Your task to perform on an android device: turn off data saver in the chrome app Image 0: 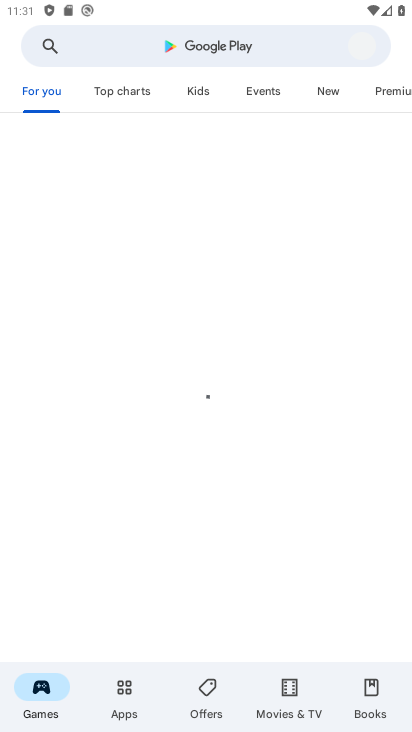
Step 0: click (401, 419)
Your task to perform on an android device: turn off data saver in the chrome app Image 1: 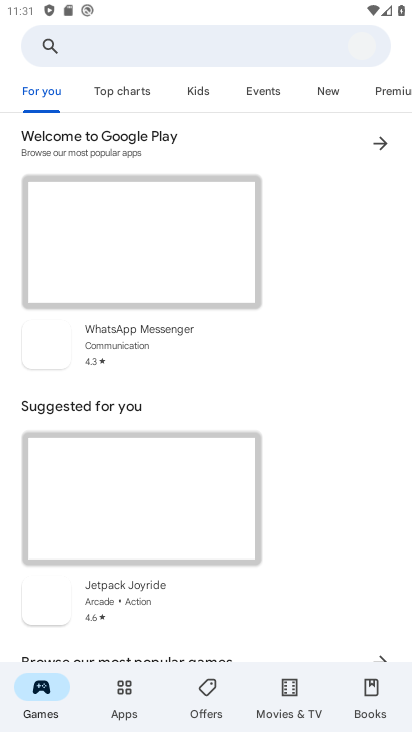
Step 1: press home button
Your task to perform on an android device: turn off data saver in the chrome app Image 2: 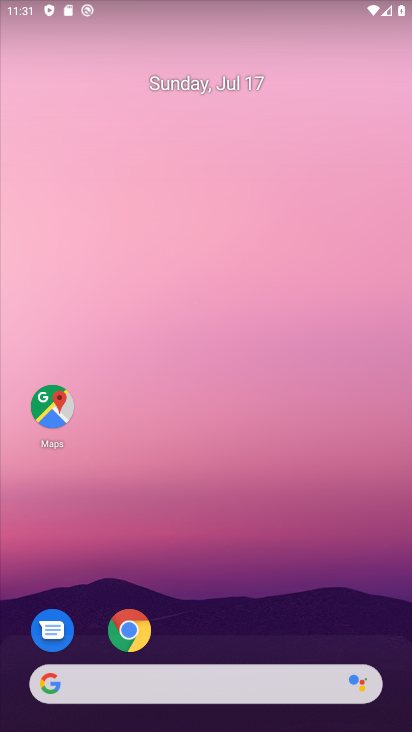
Step 2: click (125, 627)
Your task to perform on an android device: turn off data saver in the chrome app Image 3: 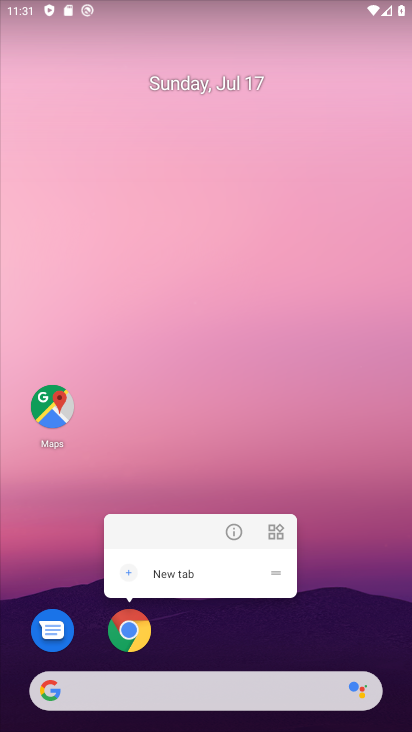
Step 3: click (115, 642)
Your task to perform on an android device: turn off data saver in the chrome app Image 4: 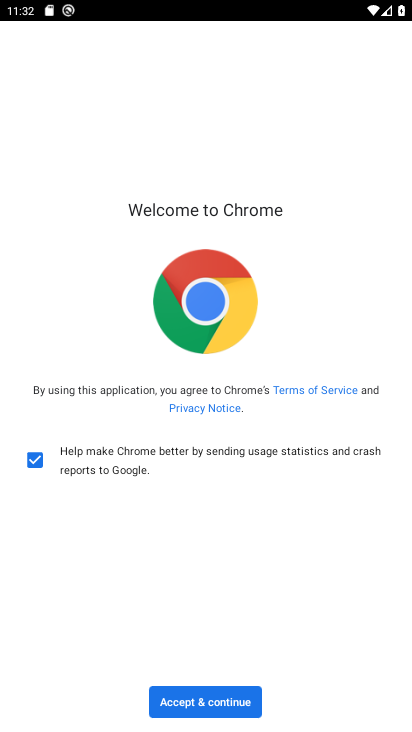
Step 4: click (196, 706)
Your task to perform on an android device: turn off data saver in the chrome app Image 5: 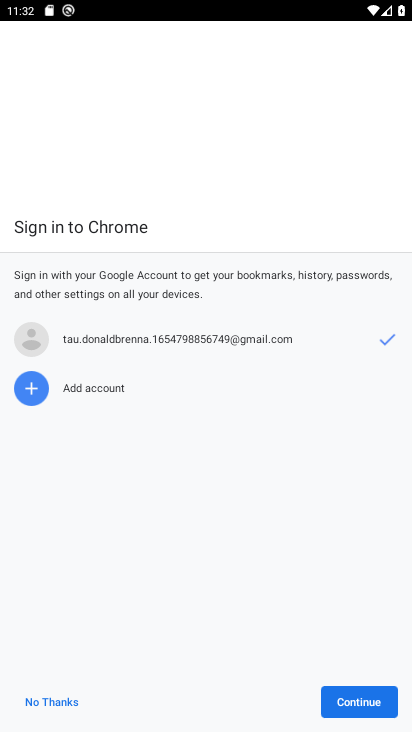
Step 5: click (376, 713)
Your task to perform on an android device: turn off data saver in the chrome app Image 6: 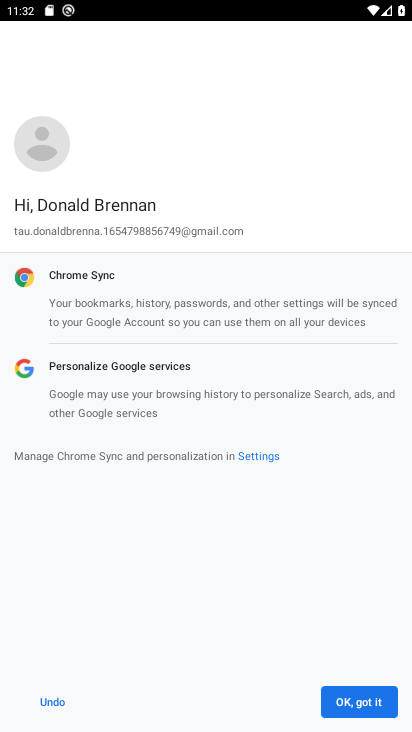
Step 6: click (376, 713)
Your task to perform on an android device: turn off data saver in the chrome app Image 7: 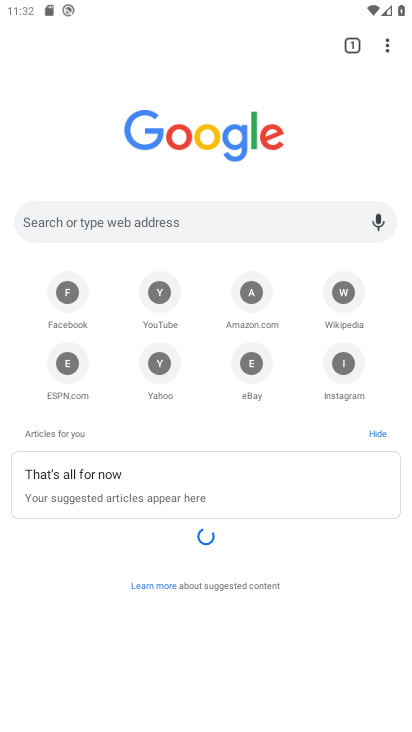
Step 7: drag from (394, 48) to (251, 374)
Your task to perform on an android device: turn off data saver in the chrome app Image 8: 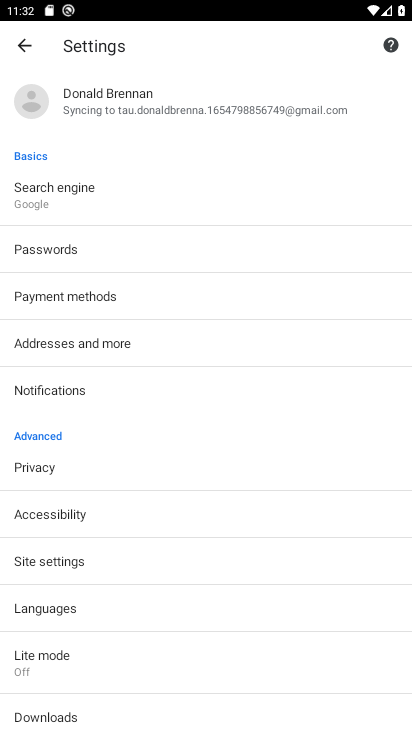
Step 8: drag from (116, 628) to (222, 212)
Your task to perform on an android device: turn off data saver in the chrome app Image 9: 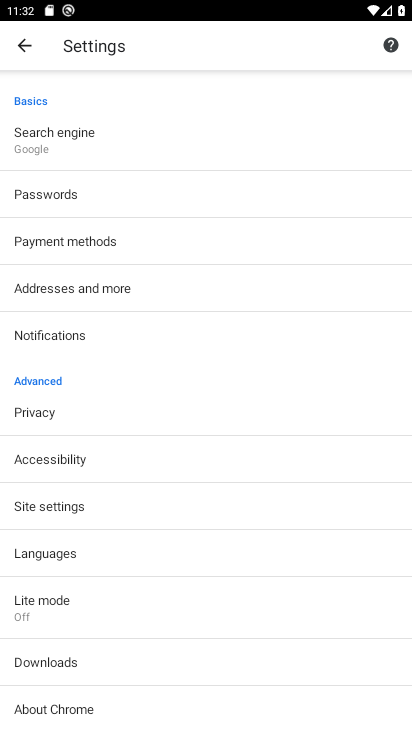
Step 9: click (108, 605)
Your task to perform on an android device: turn off data saver in the chrome app Image 10: 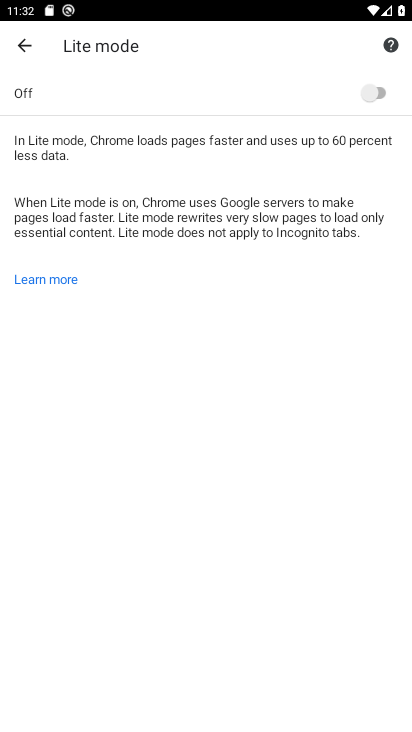
Step 10: task complete